Your task to perform on an android device: open chrome privacy settings Image 0: 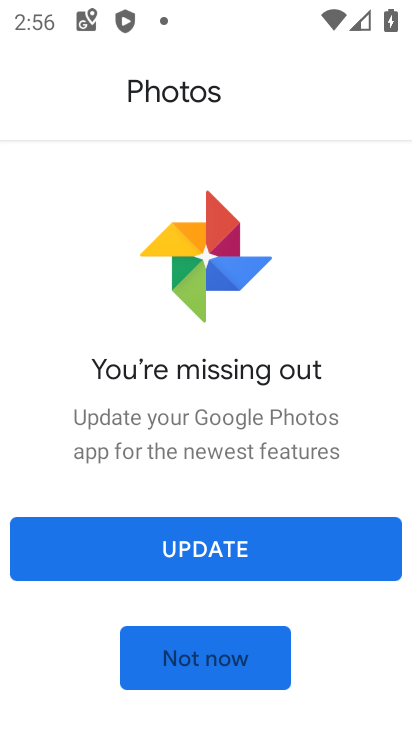
Step 0: press back button
Your task to perform on an android device: open chrome privacy settings Image 1: 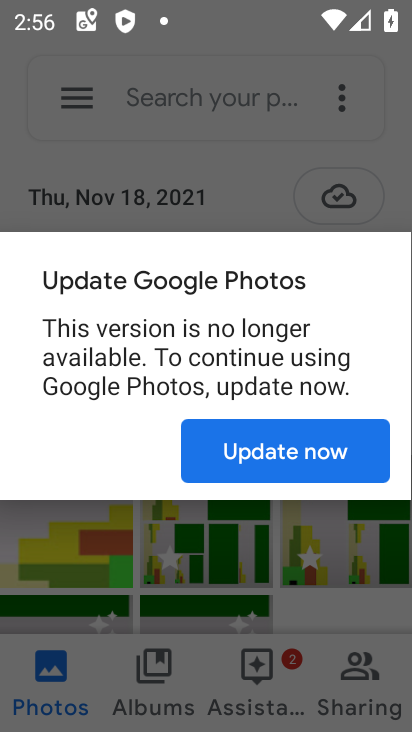
Step 1: press home button
Your task to perform on an android device: open chrome privacy settings Image 2: 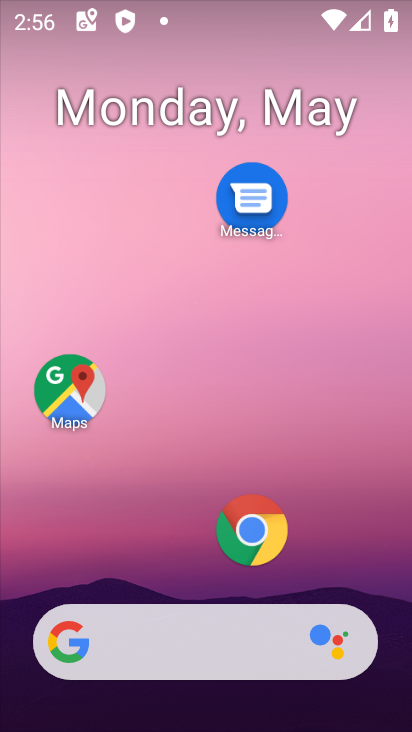
Step 2: click (245, 536)
Your task to perform on an android device: open chrome privacy settings Image 3: 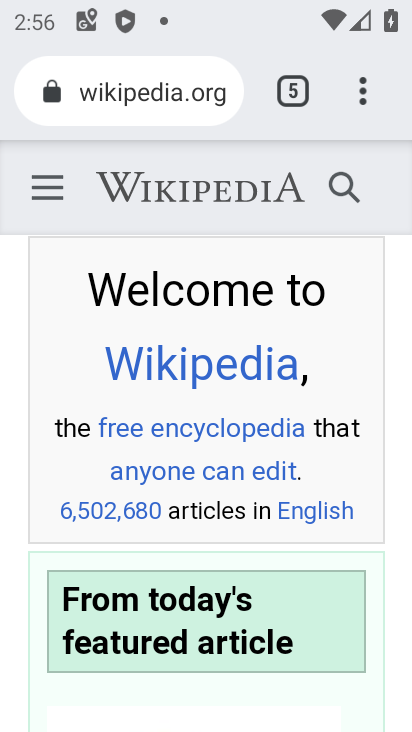
Step 3: drag from (362, 92) to (114, 559)
Your task to perform on an android device: open chrome privacy settings Image 4: 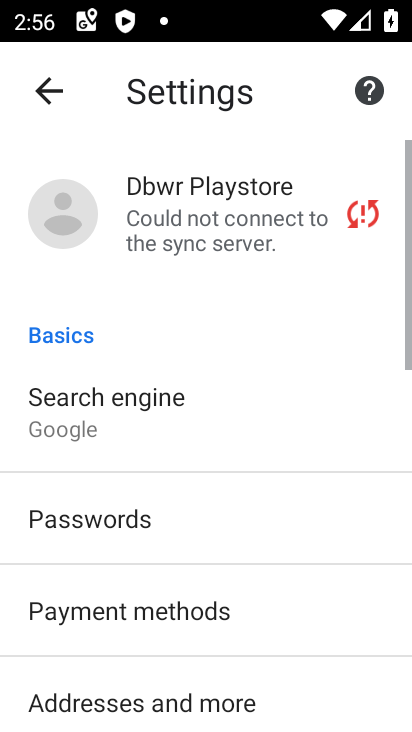
Step 4: drag from (111, 665) to (230, 216)
Your task to perform on an android device: open chrome privacy settings Image 5: 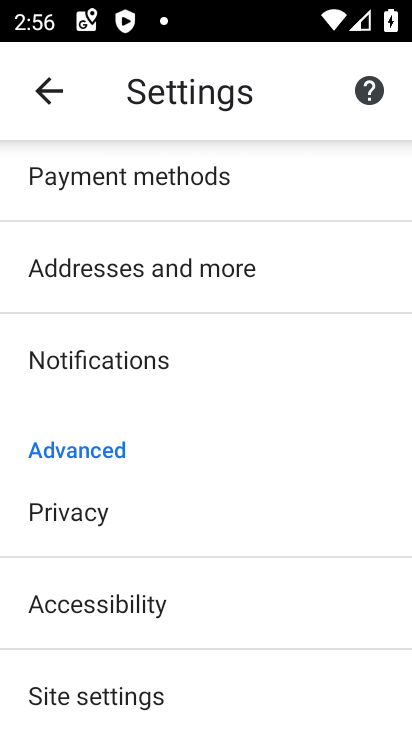
Step 5: click (85, 507)
Your task to perform on an android device: open chrome privacy settings Image 6: 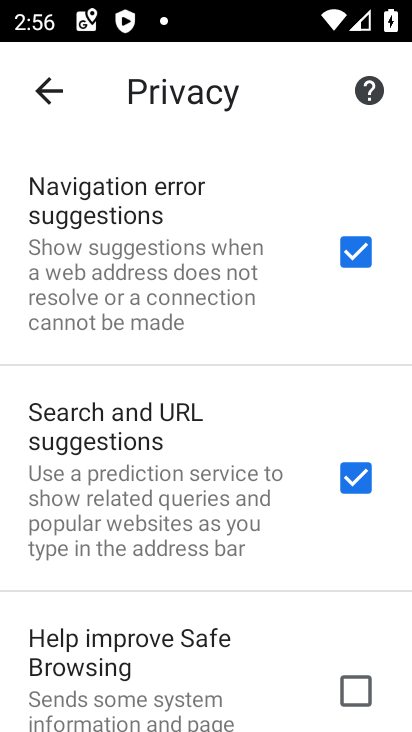
Step 6: task complete